Your task to perform on an android device: Do I have any events this weekend? Image 0: 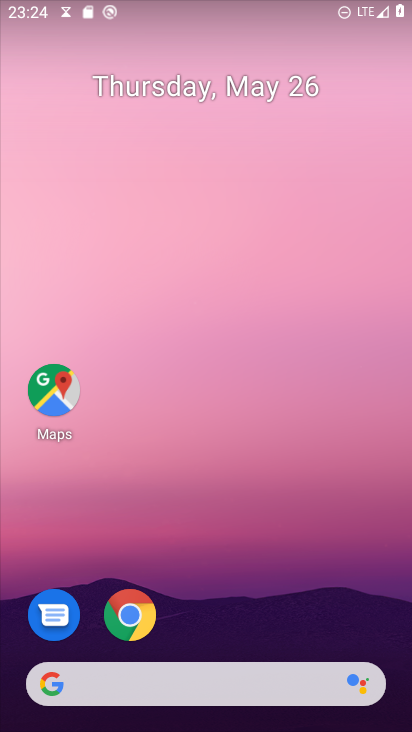
Step 0: drag from (235, 572) to (255, 190)
Your task to perform on an android device: Do I have any events this weekend? Image 1: 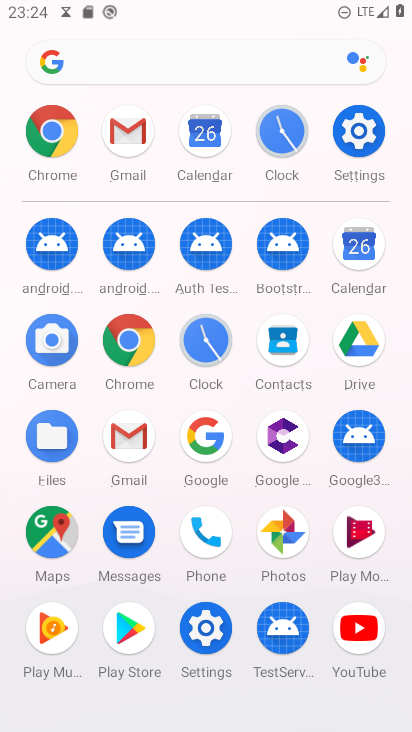
Step 1: click (351, 236)
Your task to perform on an android device: Do I have any events this weekend? Image 2: 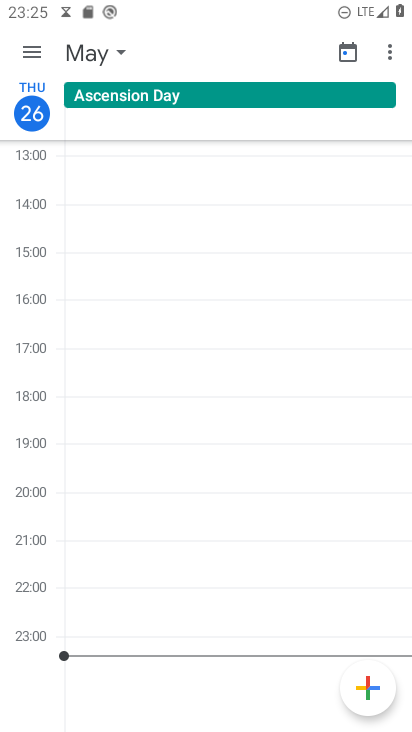
Step 2: click (23, 55)
Your task to perform on an android device: Do I have any events this weekend? Image 3: 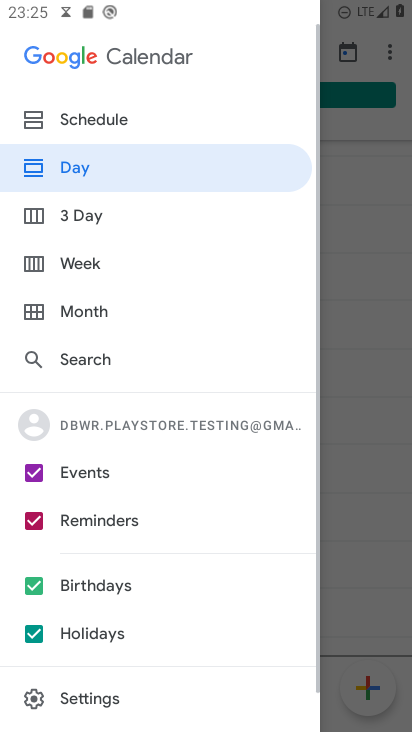
Step 3: click (81, 258)
Your task to perform on an android device: Do I have any events this weekend? Image 4: 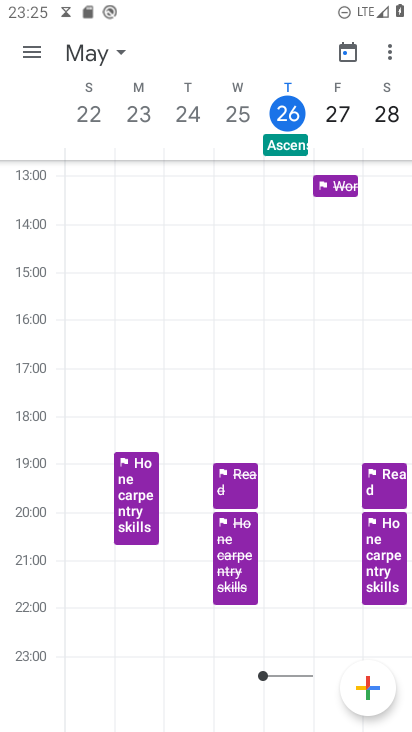
Step 4: task complete